Your task to perform on an android device: show emergency info Image 0: 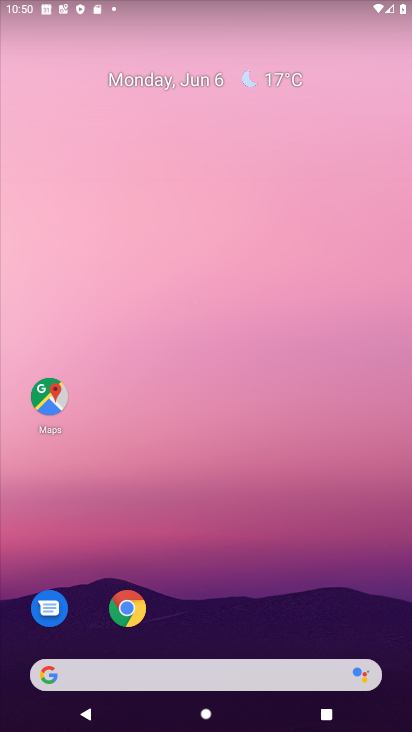
Step 0: drag from (203, 616) to (233, 68)
Your task to perform on an android device: show emergency info Image 1: 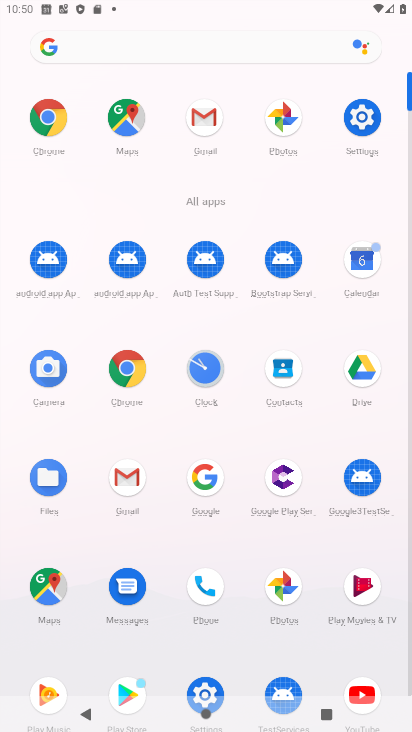
Step 1: click (357, 108)
Your task to perform on an android device: show emergency info Image 2: 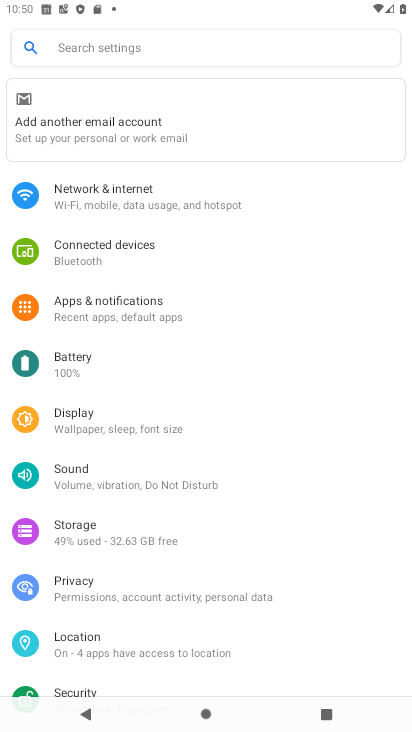
Step 2: drag from (152, 675) to (93, 21)
Your task to perform on an android device: show emergency info Image 3: 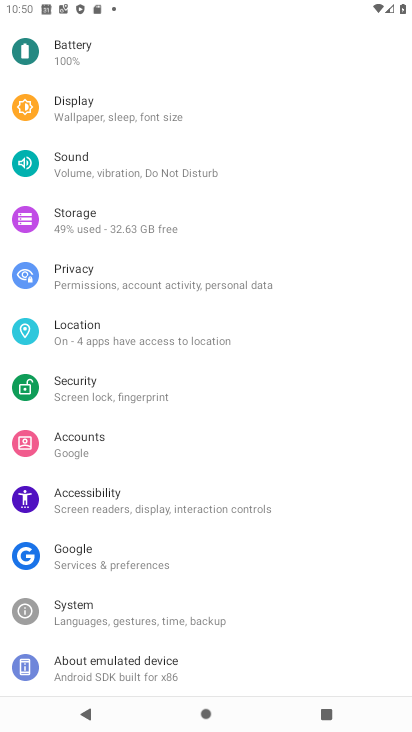
Step 3: click (143, 675)
Your task to perform on an android device: show emergency info Image 4: 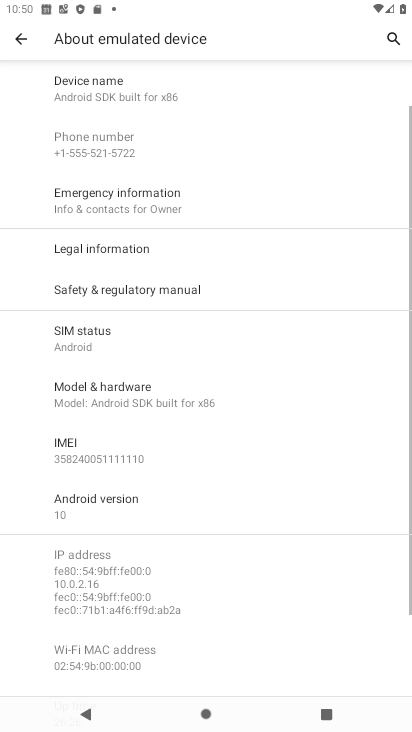
Step 4: click (233, 202)
Your task to perform on an android device: show emergency info Image 5: 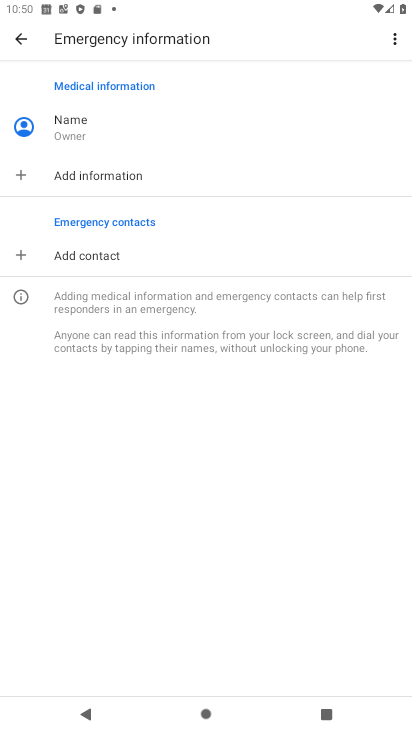
Step 5: task complete